Your task to perform on an android device: toggle wifi Image 0: 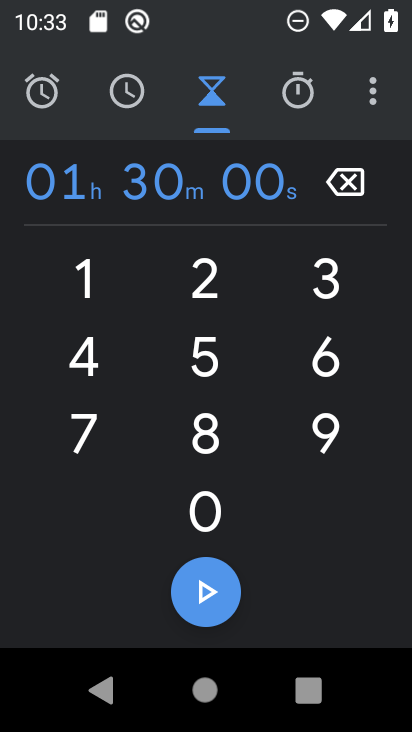
Step 0: press home button
Your task to perform on an android device: toggle wifi Image 1: 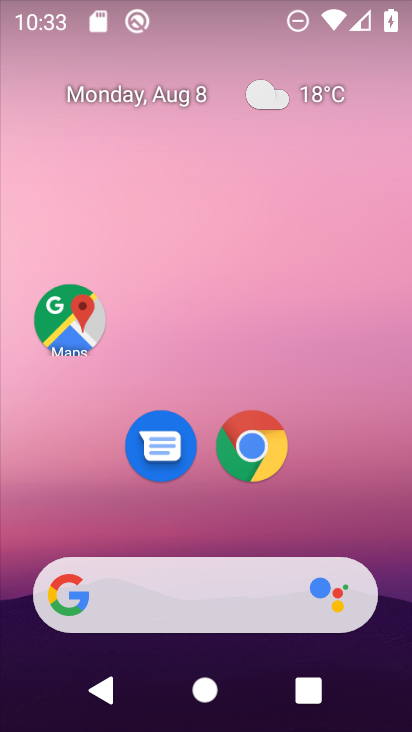
Step 1: drag from (401, 589) to (354, 135)
Your task to perform on an android device: toggle wifi Image 2: 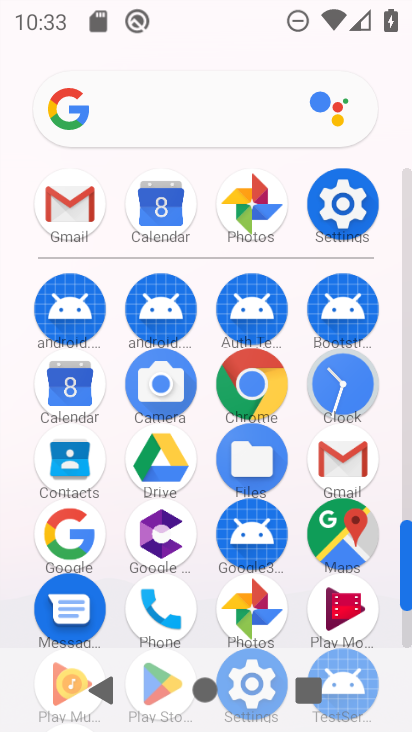
Step 2: click (406, 633)
Your task to perform on an android device: toggle wifi Image 3: 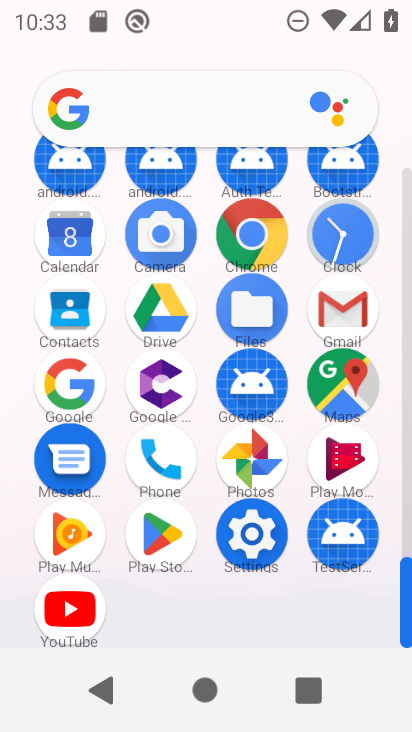
Step 3: click (247, 531)
Your task to perform on an android device: toggle wifi Image 4: 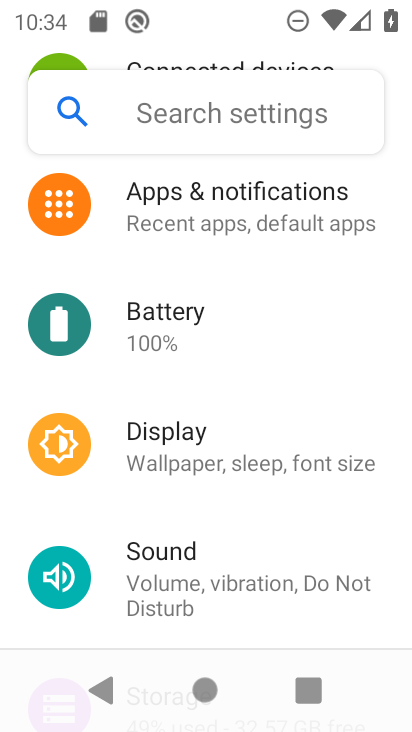
Step 4: drag from (325, 271) to (317, 477)
Your task to perform on an android device: toggle wifi Image 5: 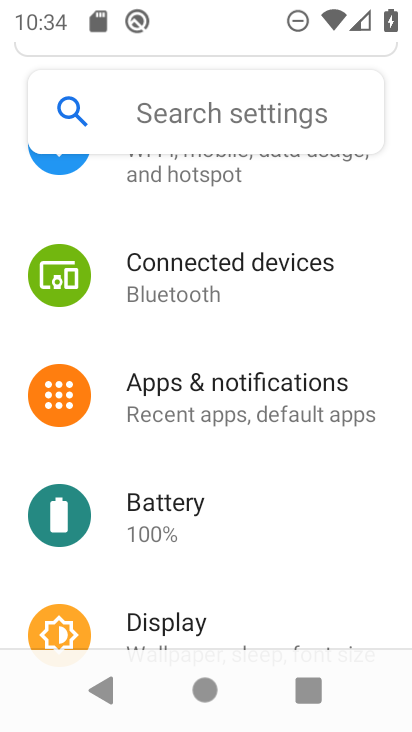
Step 5: drag from (345, 250) to (348, 454)
Your task to perform on an android device: toggle wifi Image 6: 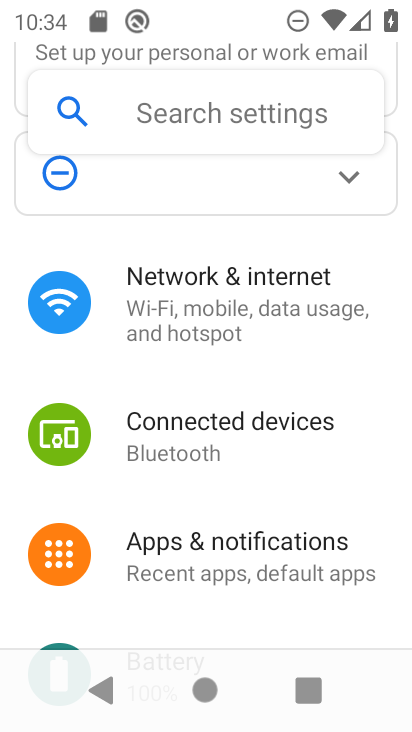
Step 6: click (183, 303)
Your task to perform on an android device: toggle wifi Image 7: 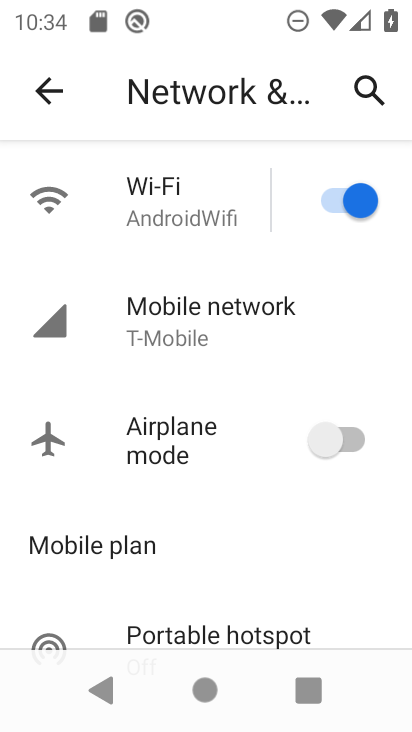
Step 7: click (322, 204)
Your task to perform on an android device: toggle wifi Image 8: 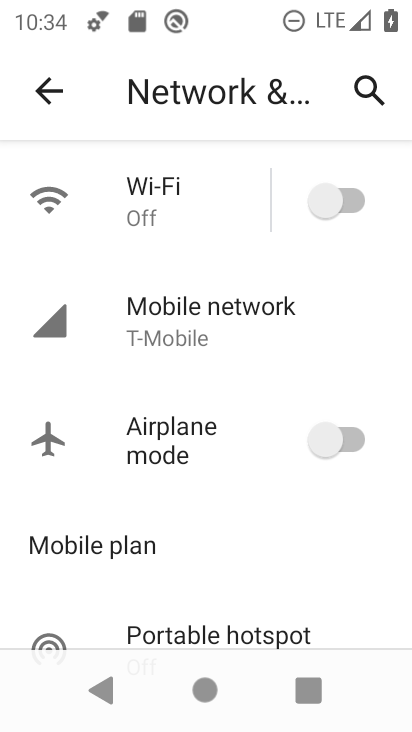
Step 8: task complete